Your task to perform on an android device: turn on translation in the chrome app Image 0: 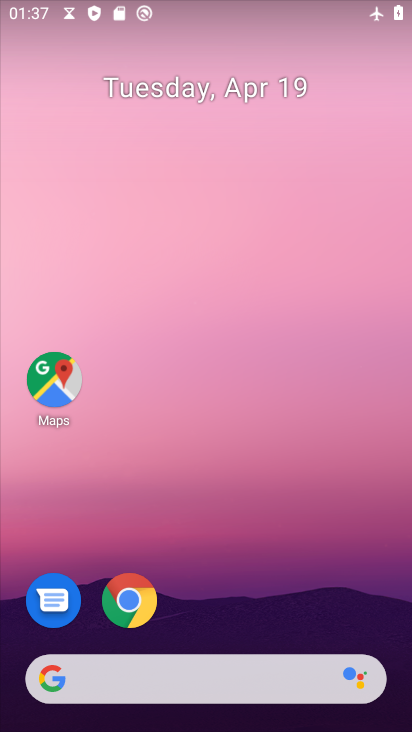
Step 0: click (105, 604)
Your task to perform on an android device: turn on translation in the chrome app Image 1: 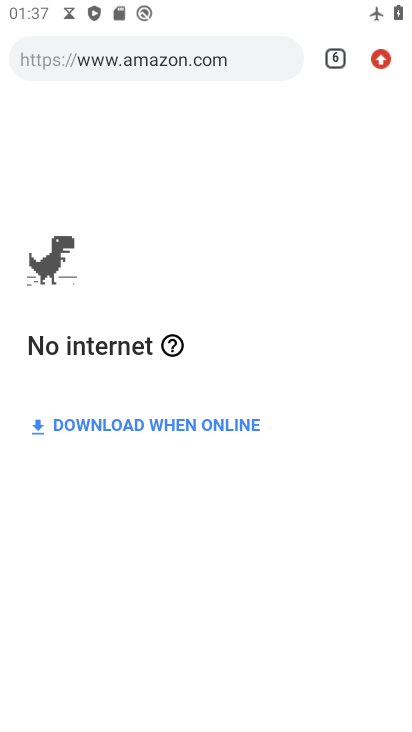
Step 1: click (376, 49)
Your task to perform on an android device: turn on translation in the chrome app Image 2: 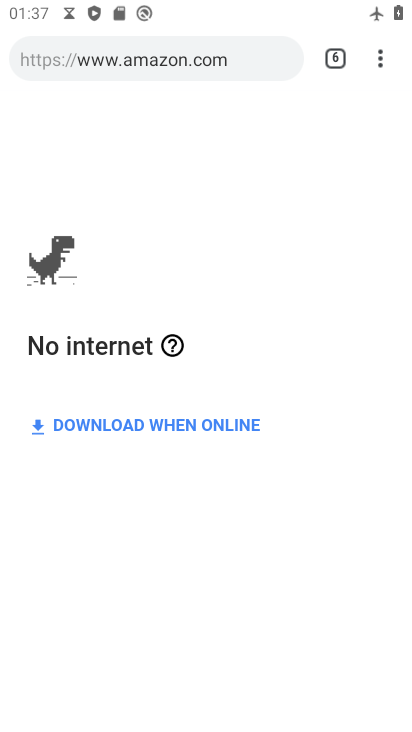
Step 2: click (375, 61)
Your task to perform on an android device: turn on translation in the chrome app Image 3: 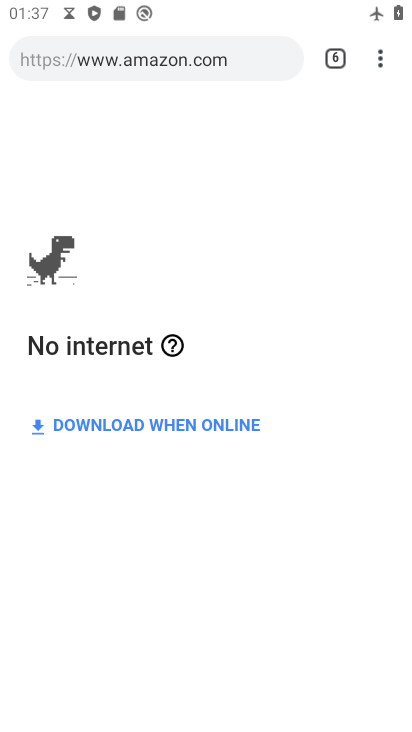
Step 3: drag from (379, 56) to (203, 639)
Your task to perform on an android device: turn on translation in the chrome app Image 4: 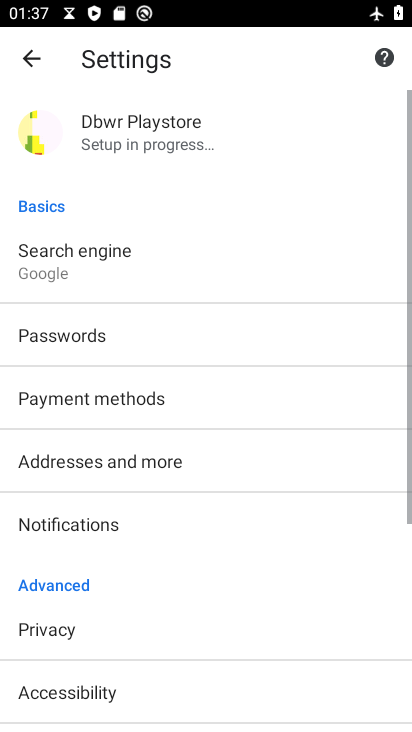
Step 4: drag from (132, 640) to (82, 140)
Your task to perform on an android device: turn on translation in the chrome app Image 5: 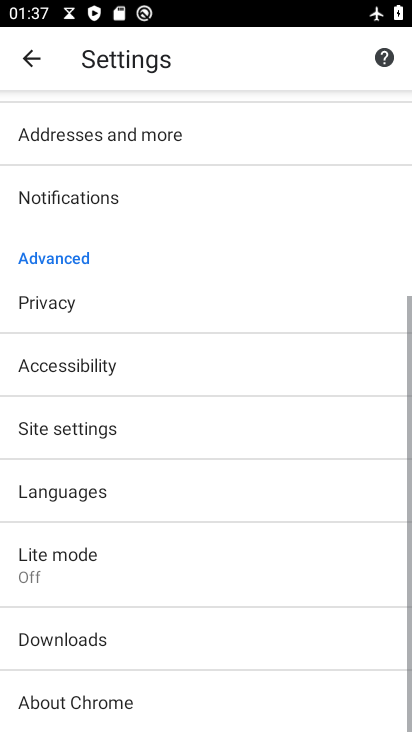
Step 5: click (76, 488)
Your task to perform on an android device: turn on translation in the chrome app Image 6: 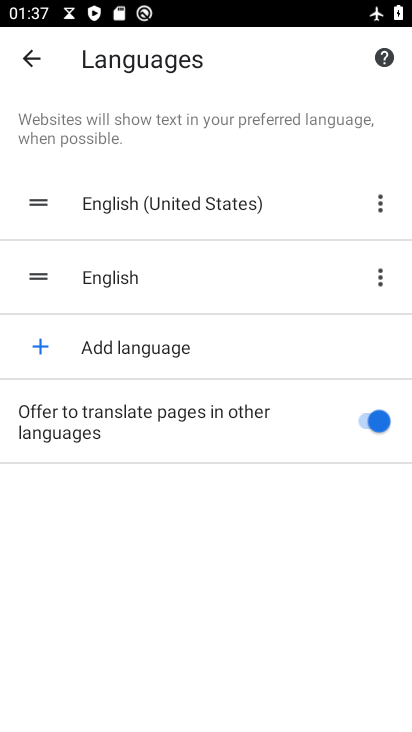
Step 6: task complete